Your task to perform on an android device: see creations saved in the google photos Image 0: 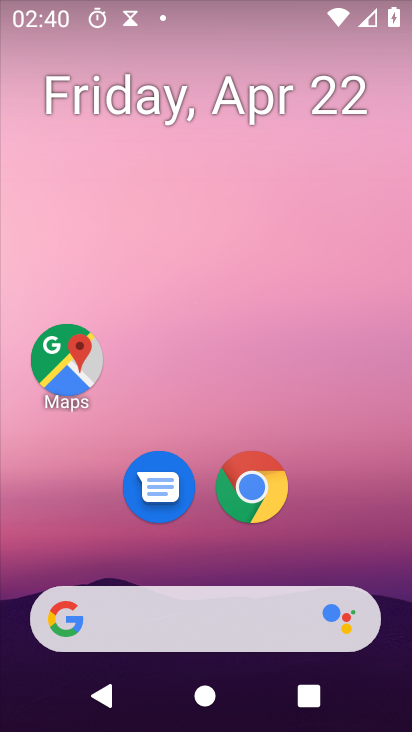
Step 0: drag from (156, 626) to (307, 160)
Your task to perform on an android device: see creations saved in the google photos Image 1: 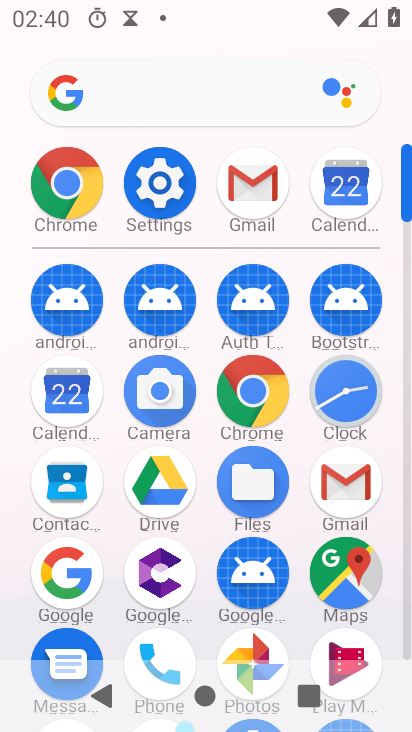
Step 1: drag from (195, 614) to (274, 226)
Your task to perform on an android device: see creations saved in the google photos Image 2: 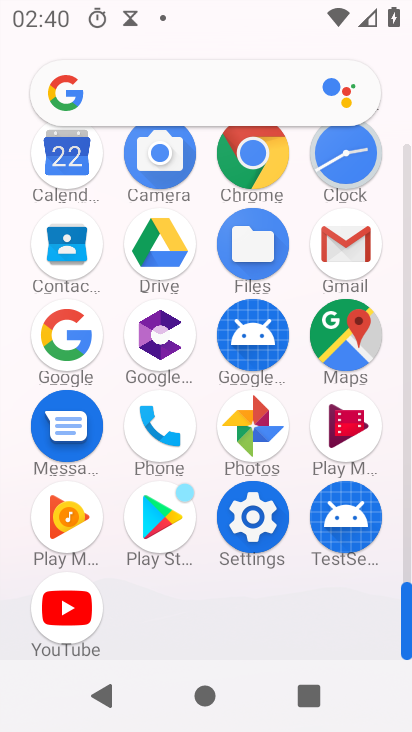
Step 2: click (268, 433)
Your task to perform on an android device: see creations saved in the google photos Image 3: 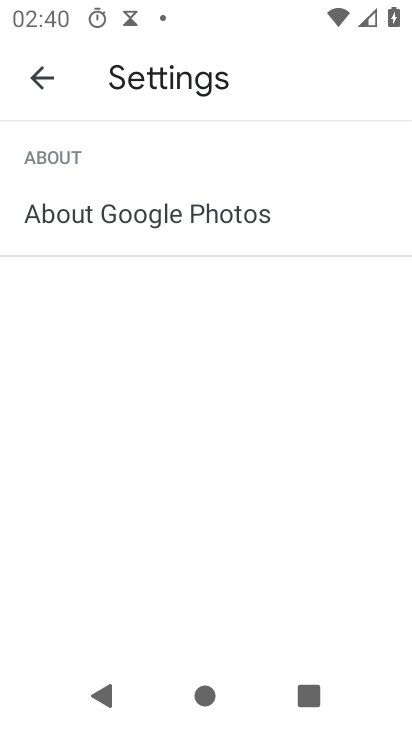
Step 3: click (50, 78)
Your task to perform on an android device: see creations saved in the google photos Image 4: 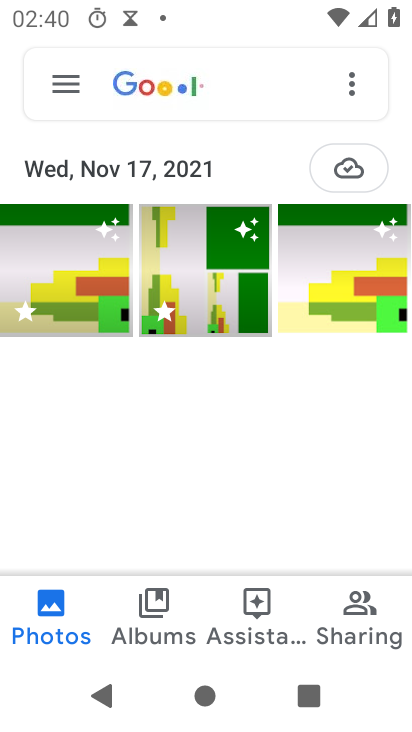
Step 4: click (165, 625)
Your task to perform on an android device: see creations saved in the google photos Image 5: 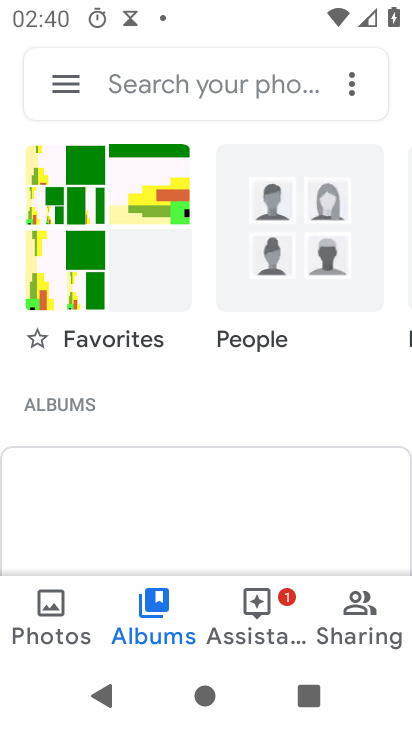
Step 5: click (213, 82)
Your task to perform on an android device: see creations saved in the google photos Image 6: 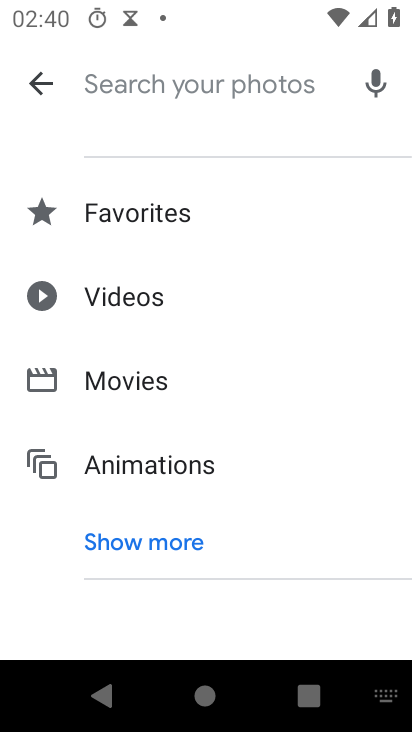
Step 6: click (126, 535)
Your task to perform on an android device: see creations saved in the google photos Image 7: 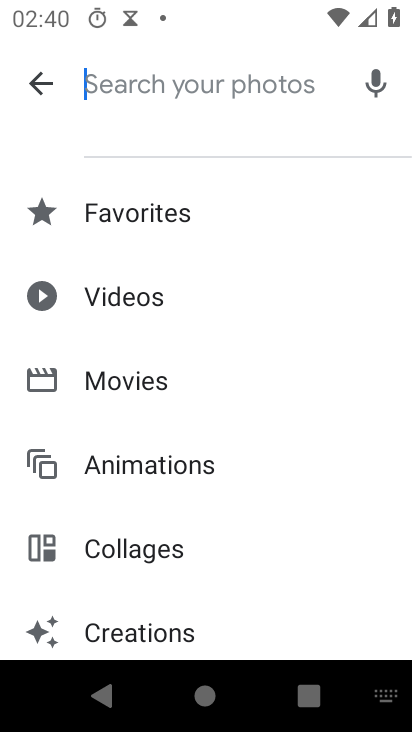
Step 7: type ""
Your task to perform on an android device: see creations saved in the google photos Image 8: 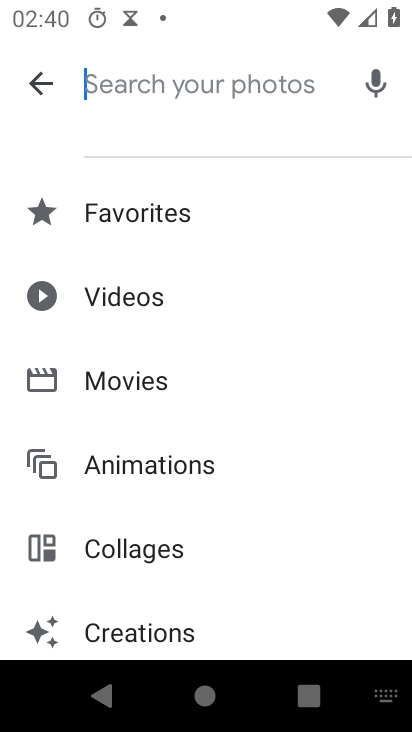
Step 8: click (145, 641)
Your task to perform on an android device: see creations saved in the google photos Image 9: 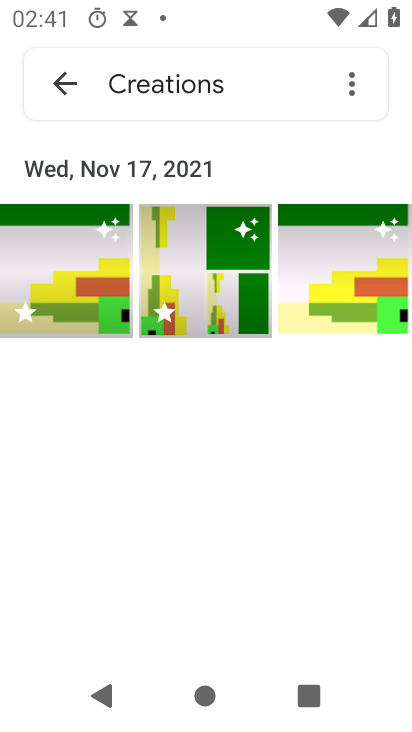
Step 9: task complete